Your task to perform on an android device: allow cookies in the chrome app Image 0: 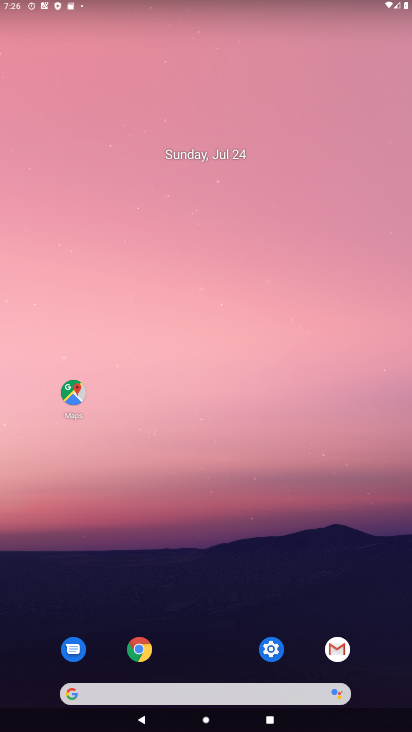
Step 0: click (135, 650)
Your task to perform on an android device: allow cookies in the chrome app Image 1: 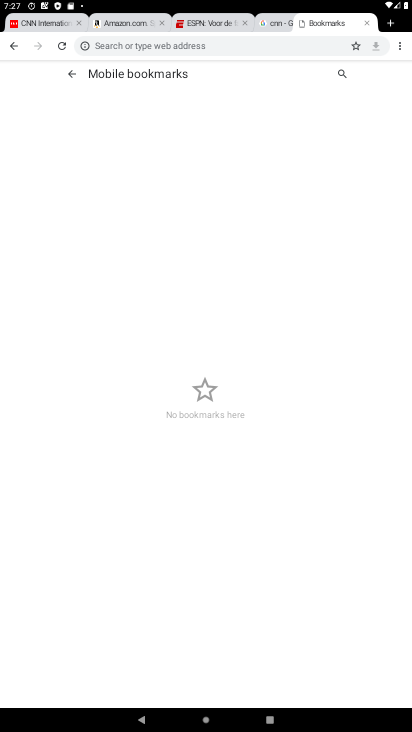
Step 1: click (392, 50)
Your task to perform on an android device: allow cookies in the chrome app Image 2: 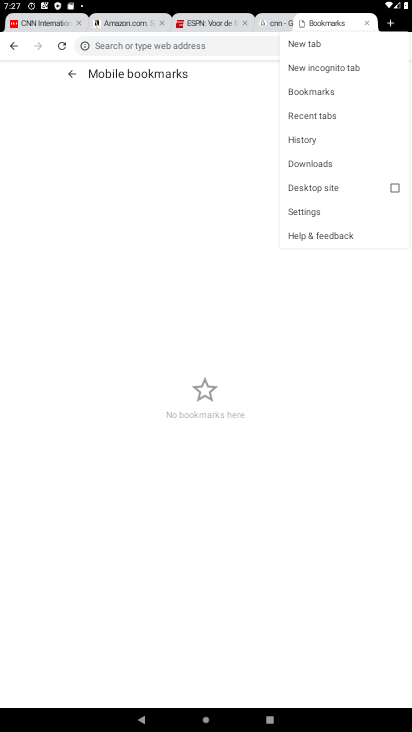
Step 2: click (319, 204)
Your task to perform on an android device: allow cookies in the chrome app Image 3: 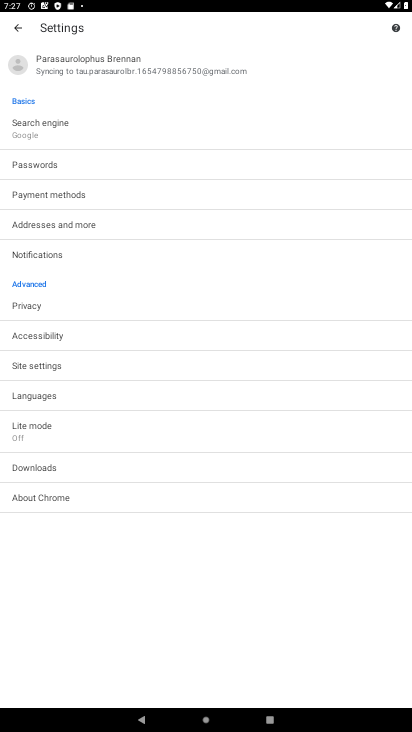
Step 3: click (49, 361)
Your task to perform on an android device: allow cookies in the chrome app Image 4: 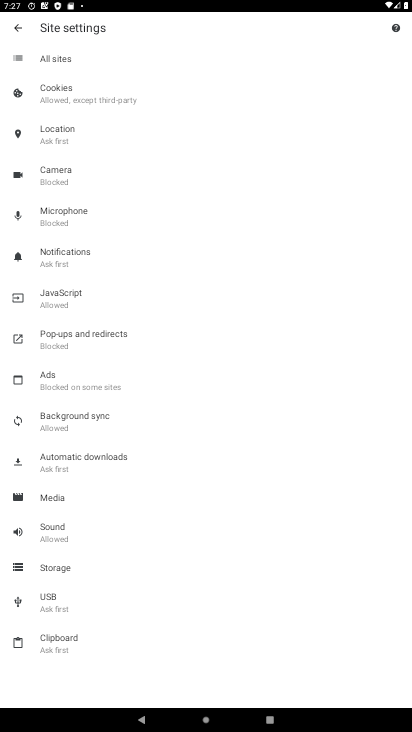
Step 4: click (89, 95)
Your task to perform on an android device: allow cookies in the chrome app Image 5: 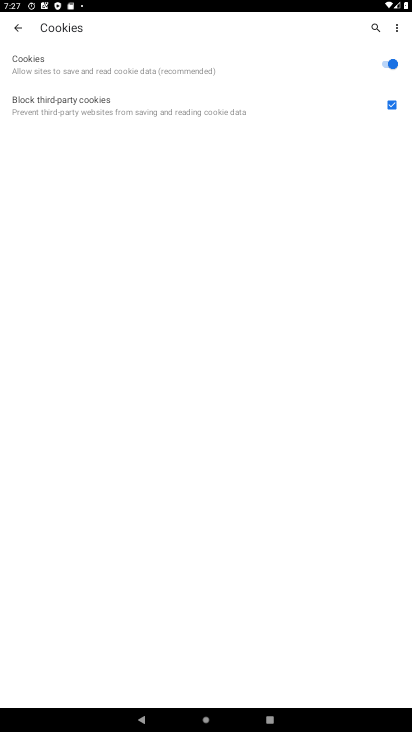
Step 5: task complete